Your task to perform on an android device: Open Google Chrome Image 0: 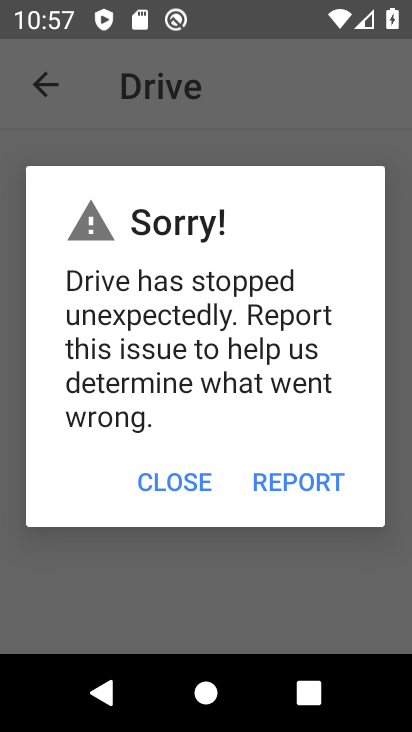
Step 0: press home button
Your task to perform on an android device: Open Google Chrome Image 1: 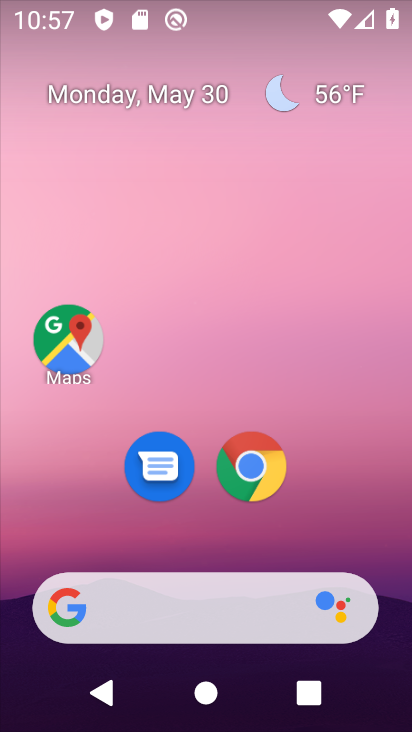
Step 1: click (249, 459)
Your task to perform on an android device: Open Google Chrome Image 2: 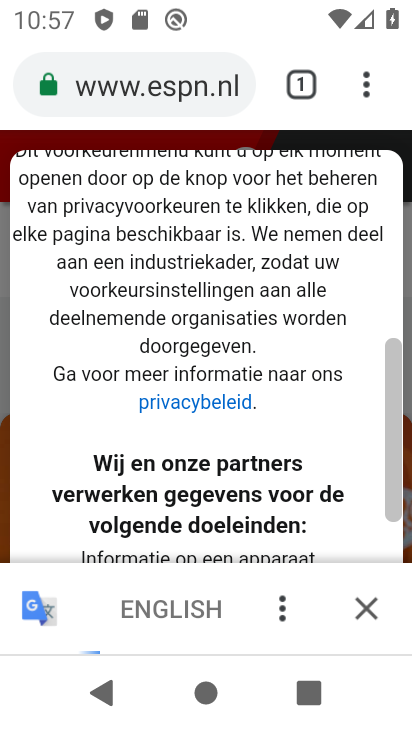
Step 2: task complete